Your task to perform on an android device: turn off translation in the chrome app Image 0: 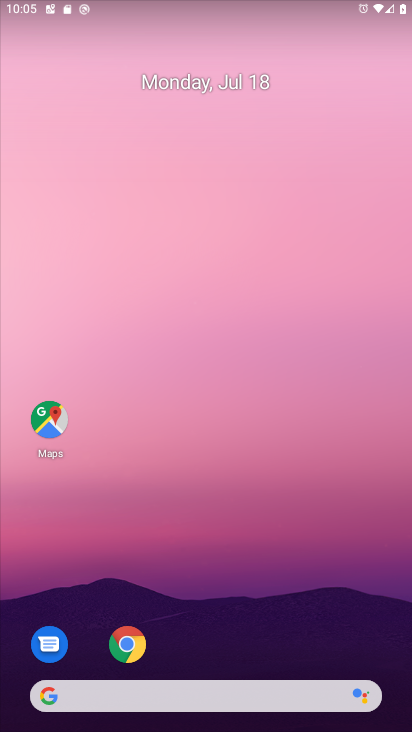
Step 0: click (152, 633)
Your task to perform on an android device: turn off translation in the chrome app Image 1: 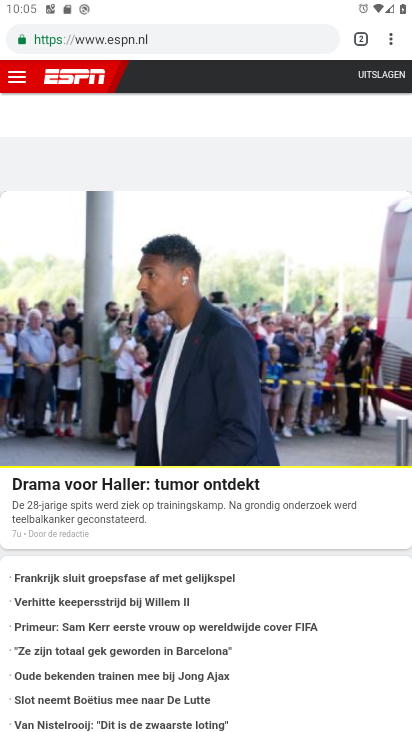
Step 1: click (398, 50)
Your task to perform on an android device: turn off translation in the chrome app Image 2: 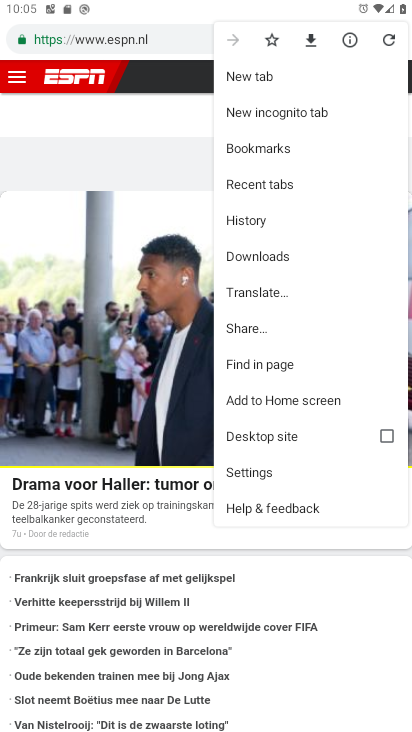
Step 2: click (275, 466)
Your task to perform on an android device: turn off translation in the chrome app Image 3: 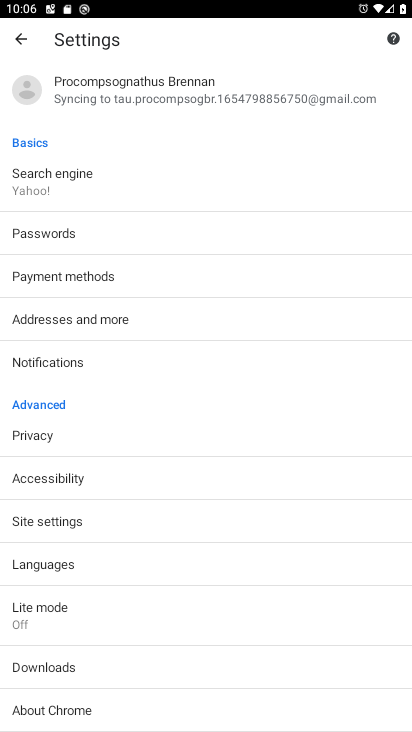
Step 3: task complete